Your task to perform on an android device: Go to battery settings Image 0: 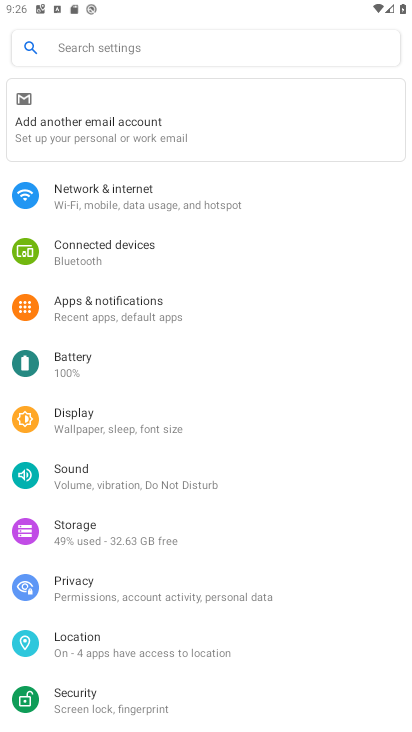
Step 0: click (246, 361)
Your task to perform on an android device: Go to battery settings Image 1: 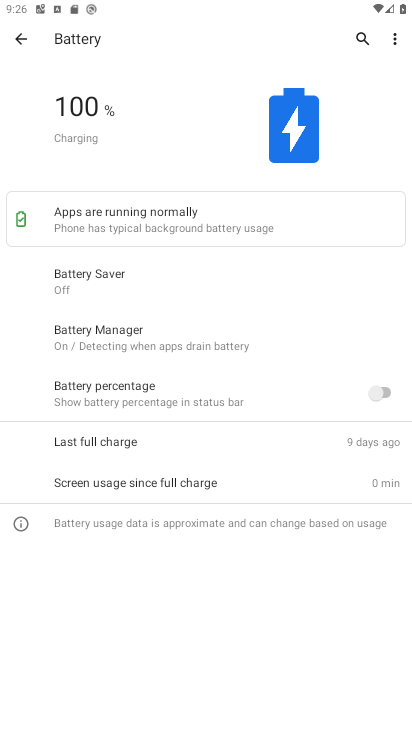
Step 1: task complete